Your task to perform on an android device: Turn off the flashlight Image 0: 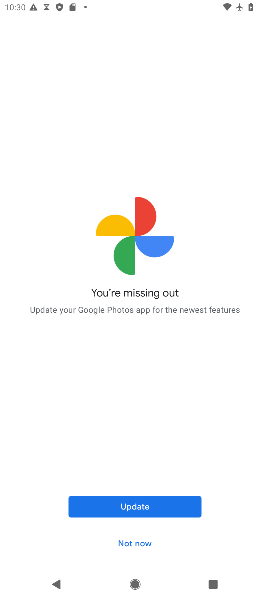
Step 0: press back button
Your task to perform on an android device: Turn off the flashlight Image 1: 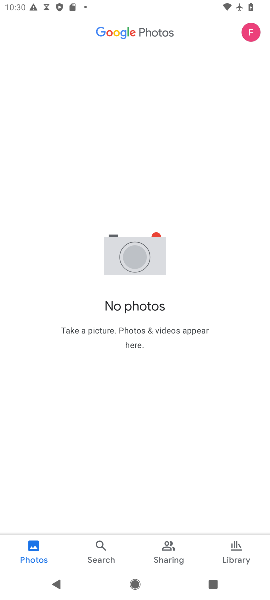
Step 1: task complete